Your task to perform on an android device: Open battery settings Image 0: 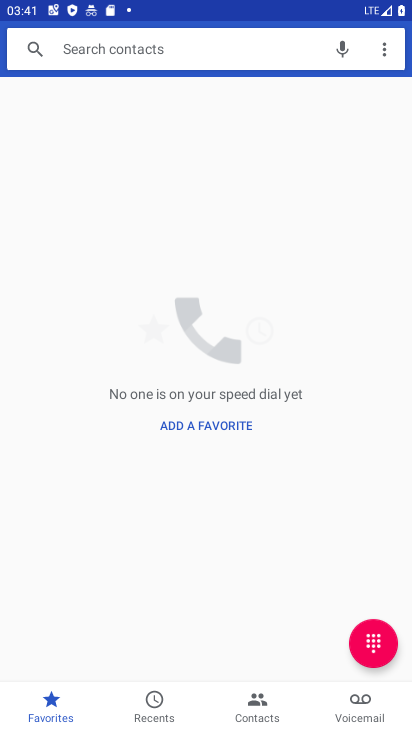
Step 0: press home button
Your task to perform on an android device: Open battery settings Image 1: 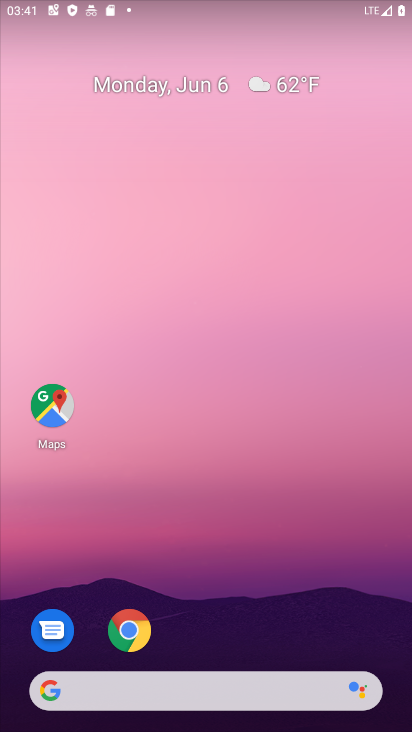
Step 1: drag from (232, 629) to (196, 238)
Your task to perform on an android device: Open battery settings Image 2: 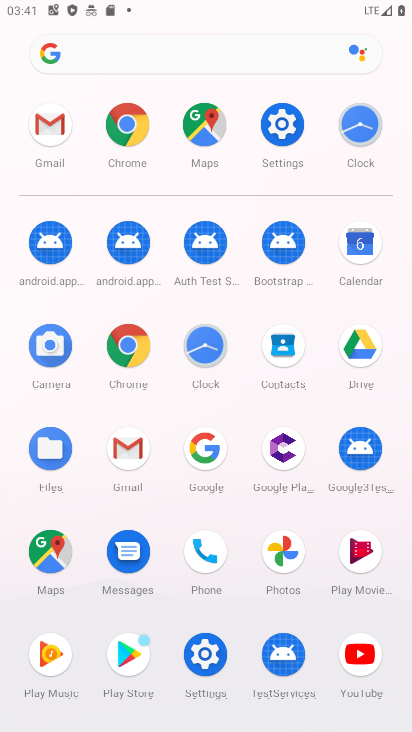
Step 2: click (277, 122)
Your task to perform on an android device: Open battery settings Image 3: 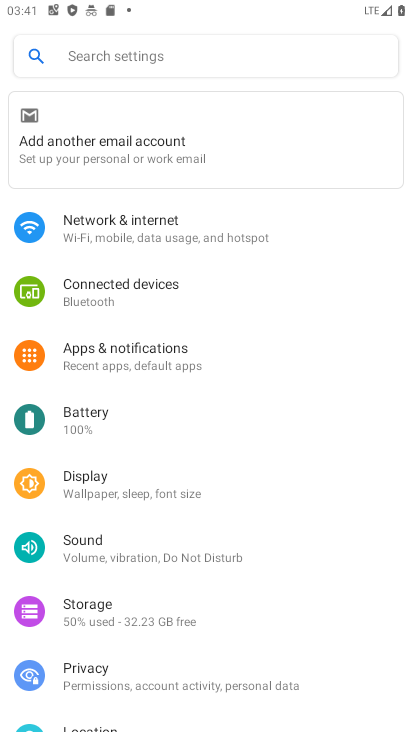
Step 3: click (85, 435)
Your task to perform on an android device: Open battery settings Image 4: 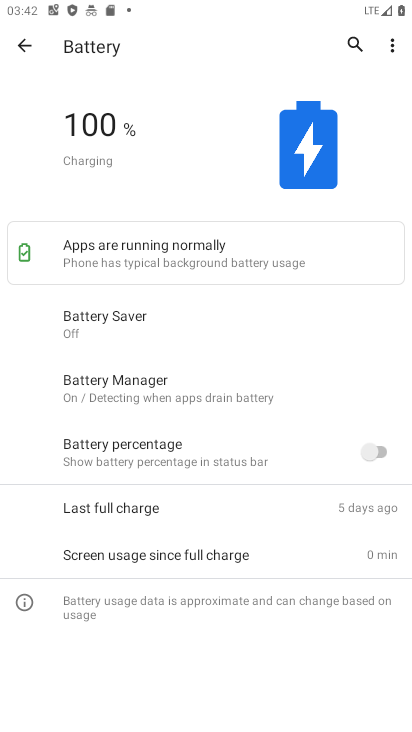
Step 4: task complete